Your task to perform on an android device: Go to Reddit.com Image 0: 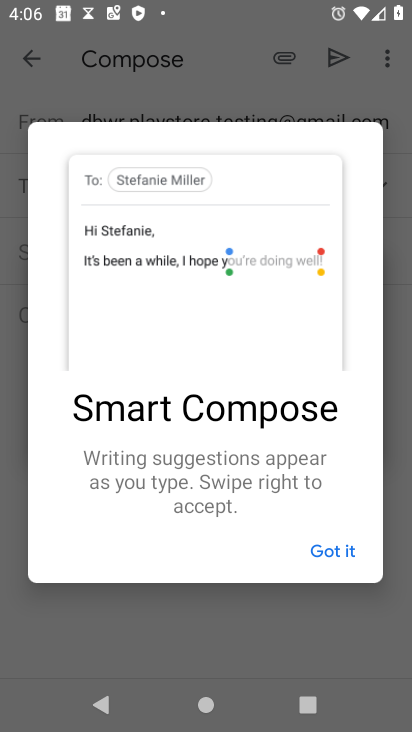
Step 0: press home button
Your task to perform on an android device: Go to Reddit.com Image 1: 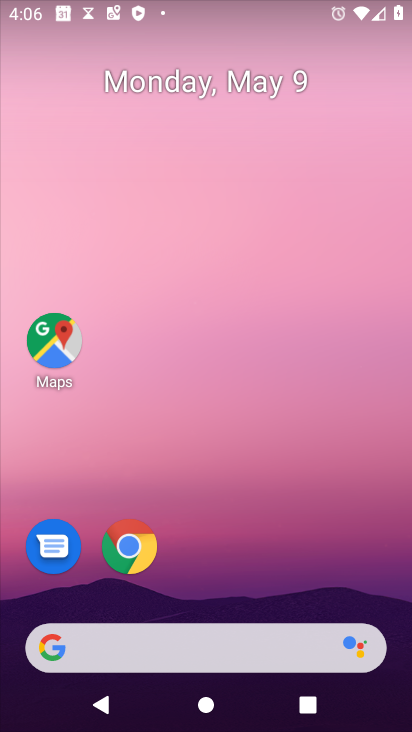
Step 1: drag from (354, 522) to (263, 58)
Your task to perform on an android device: Go to Reddit.com Image 2: 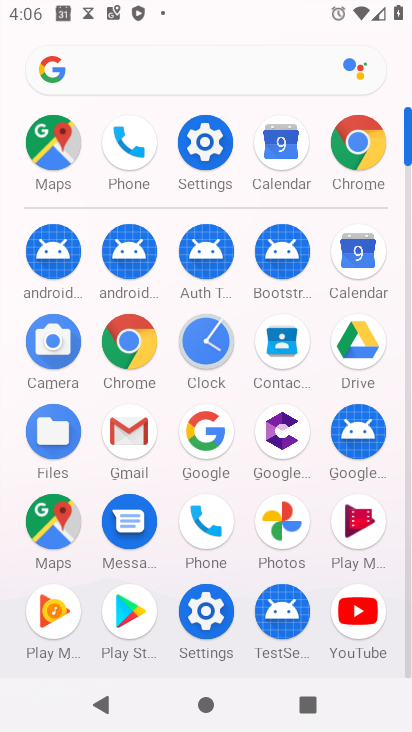
Step 2: click (378, 162)
Your task to perform on an android device: Go to Reddit.com Image 3: 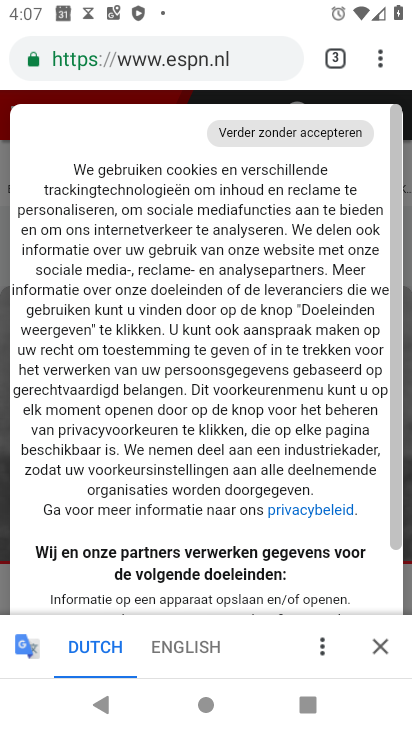
Step 3: click (183, 69)
Your task to perform on an android device: Go to Reddit.com Image 4: 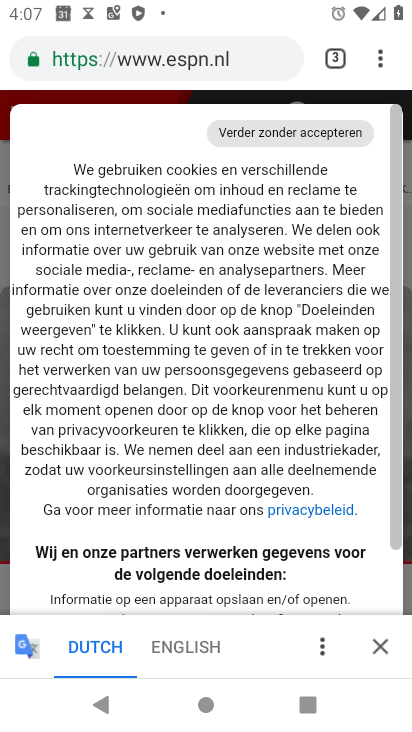
Step 4: click (175, 52)
Your task to perform on an android device: Go to Reddit.com Image 5: 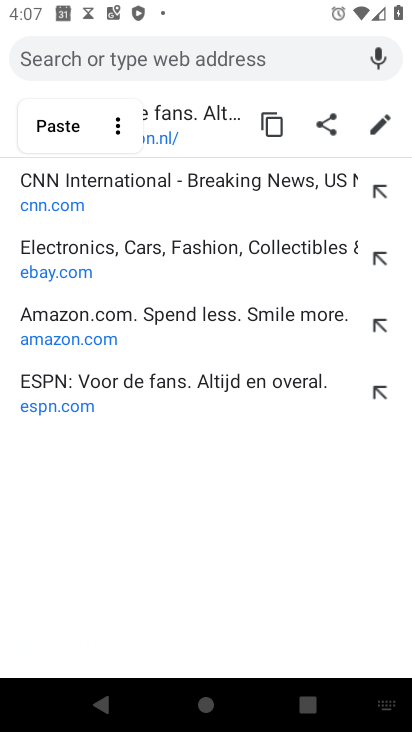
Step 5: type "reddit"
Your task to perform on an android device: Go to Reddit.com Image 6: 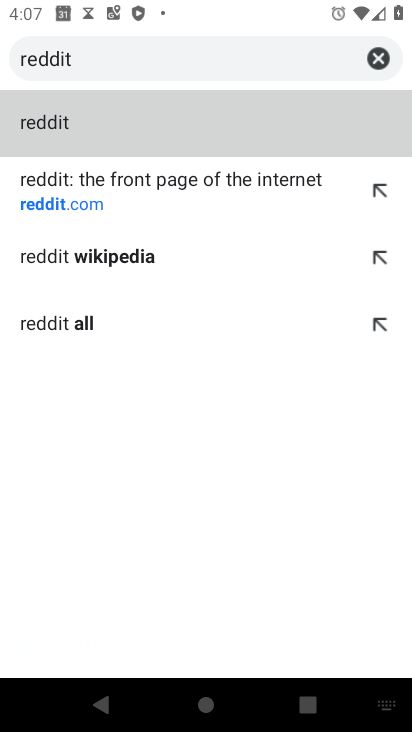
Step 6: click (15, 135)
Your task to perform on an android device: Go to Reddit.com Image 7: 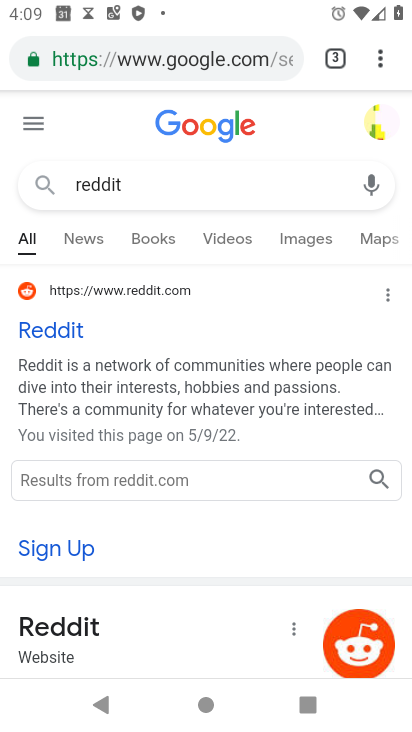
Step 7: click (61, 324)
Your task to perform on an android device: Go to Reddit.com Image 8: 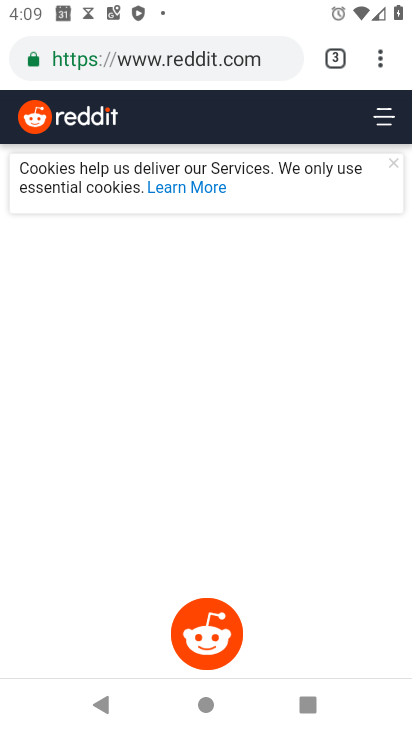
Step 8: task complete